Your task to perform on an android device: turn pop-ups off in chrome Image 0: 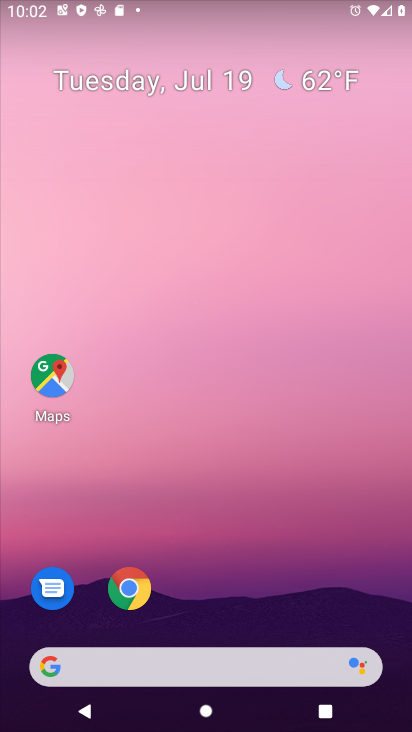
Step 0: drag from (295, 564) to (272, 2)
Your task to perform on an android device: turn pop-ups off in chrome Image 1: 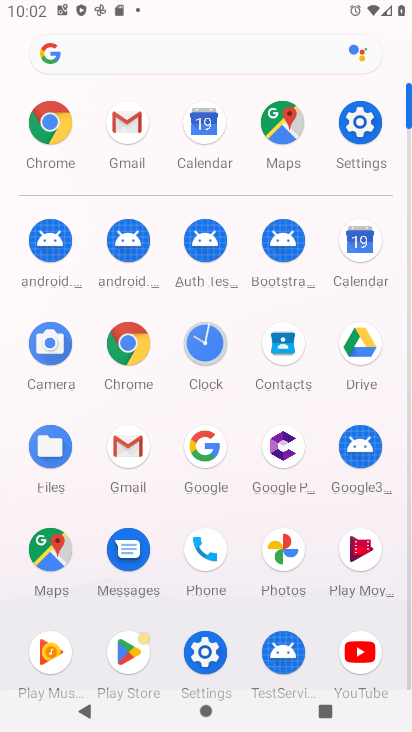
Step 1: click (44, 124)
Your task to perform on an android device: turn pop-ups off in chrome Image 2: 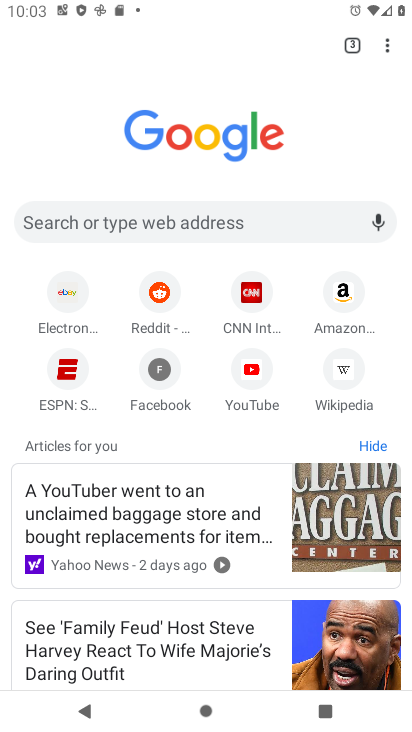
Step 2: drag from (391, 45) to (242, 379)
Your task to perform on an android device: turn pop-ups off in chrome Image 3: 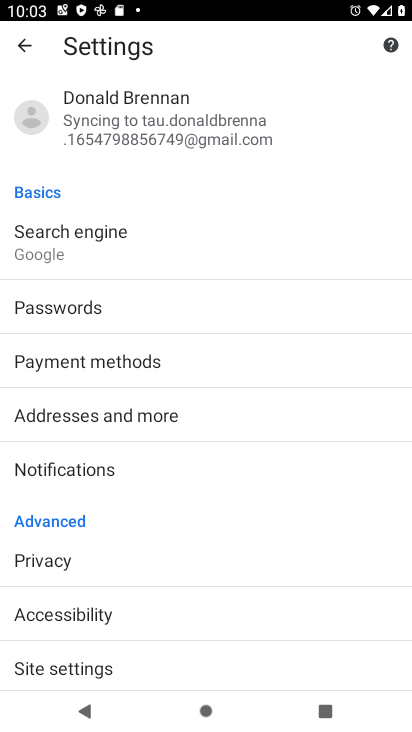
Step 3: drag from (126, 626) to (72, 263)
Your task to perform on an android device: turn pop-ups off in chrome Image 4: 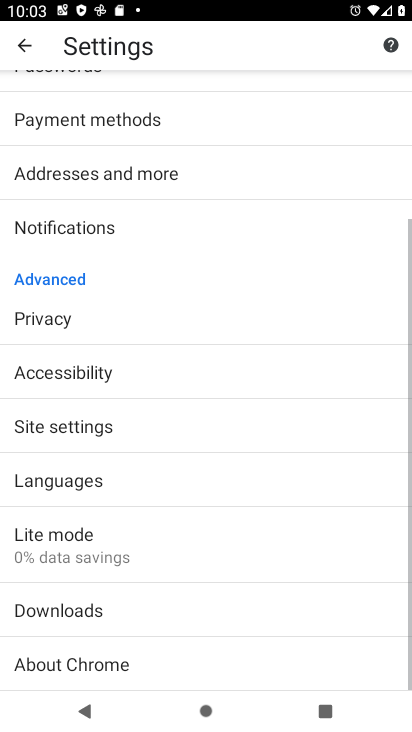
Step 4: click (82, 429)
Your task to perform on an android device: turn pop-ups off in chrome Image 5: 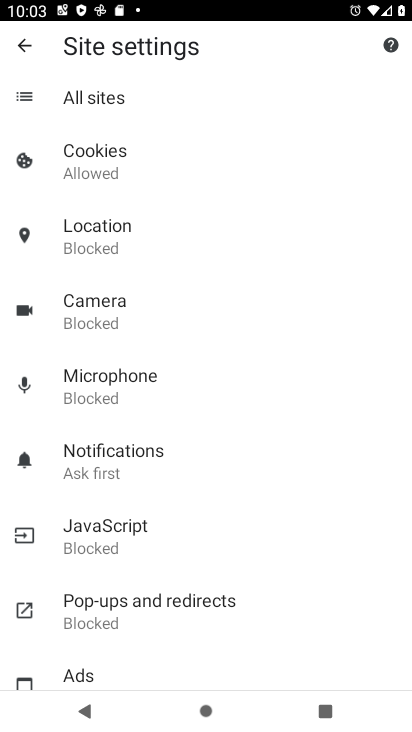
Step 5: drag from (128, 537) to (90, 226)
Your task to perform on an android device: turn pop-ups off in chrome Image 6: 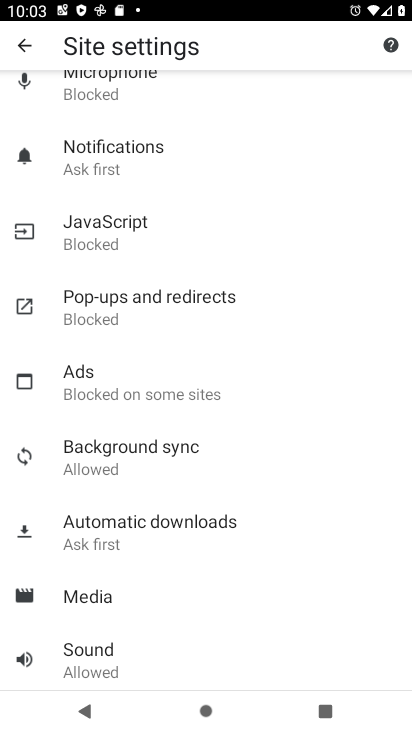
Step 6: drag from (115, 267) to (180, 591)
Your task to perform on an android device: turn pop-ups off in chrome Image 7: 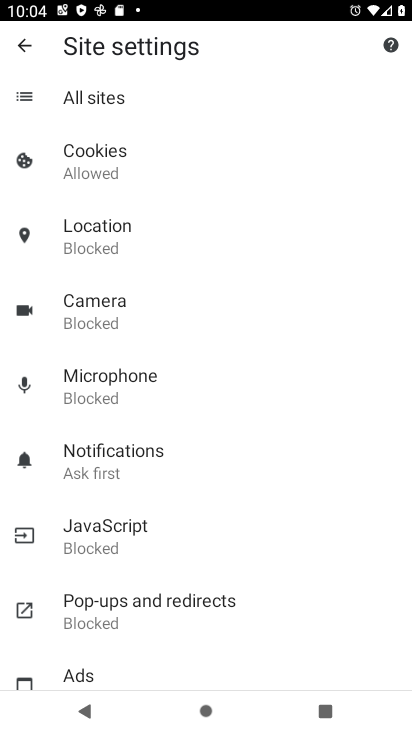
Step 7: drag from (140, 517) to (132, 271)
Your task to perform on an android device: turn pop-ups off in chrome Image 8: 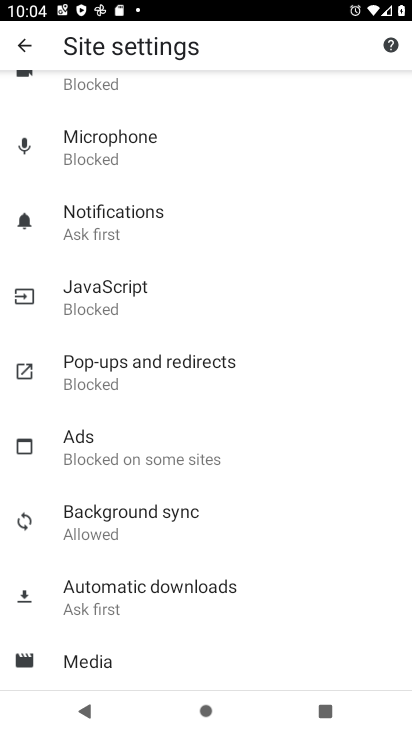
Step 8: click (140, 371)
Your task to perform on an android device: turn pop-ups off in chrome Image 9: 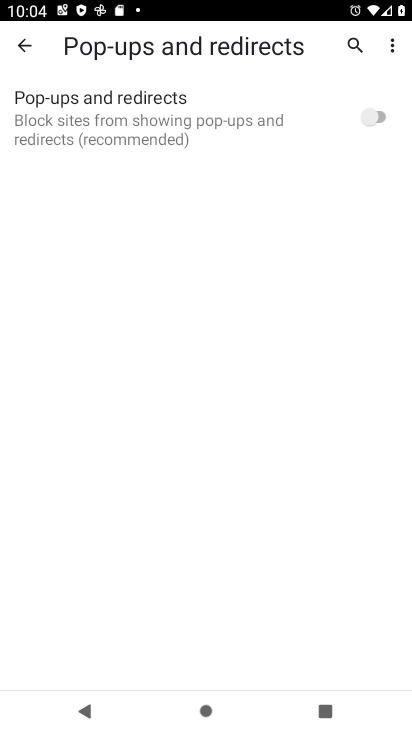
Step 9: task complete